Your task to perform on an android device: turn off smart reply in the gmail app Image 0: 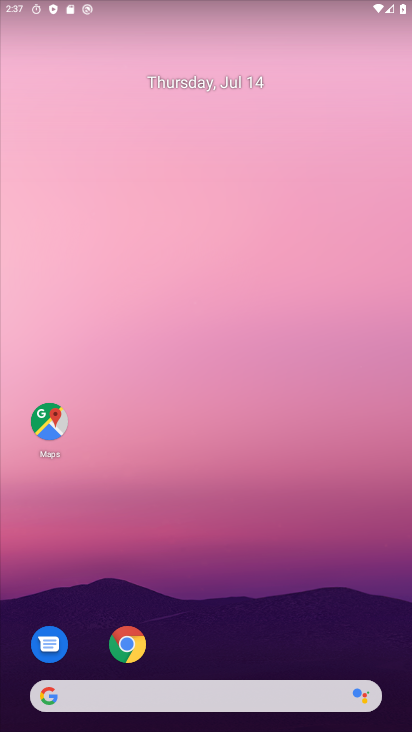
Step 0: drag from (55, 657) to (143, 136)
Your task to perform on an android device: turn off smart reply in the gmail app Image 1: 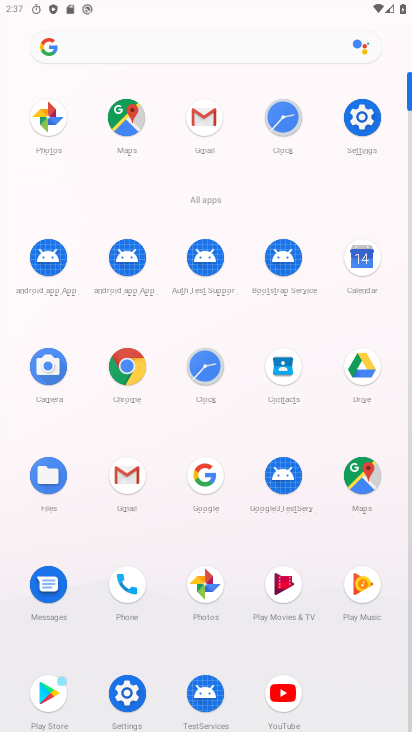
Step 1: click (133, 473)
Your task to perform on an android device: turn off smart reply in the gmail app Image 2: 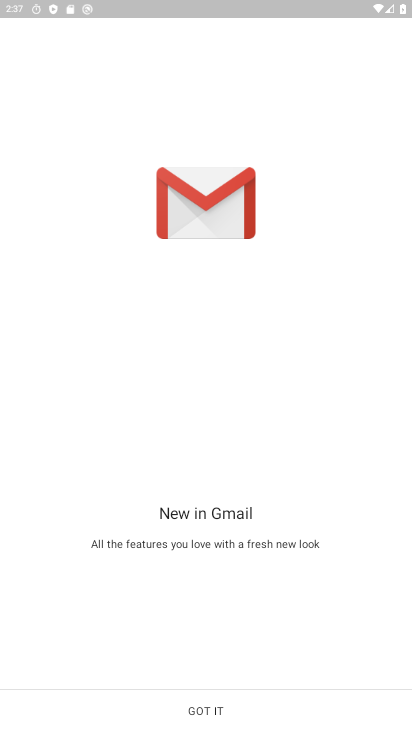
Step 2: click (194, 719)
Your task to perform on an android device: turn off smart reply in the gmail app Image 3: 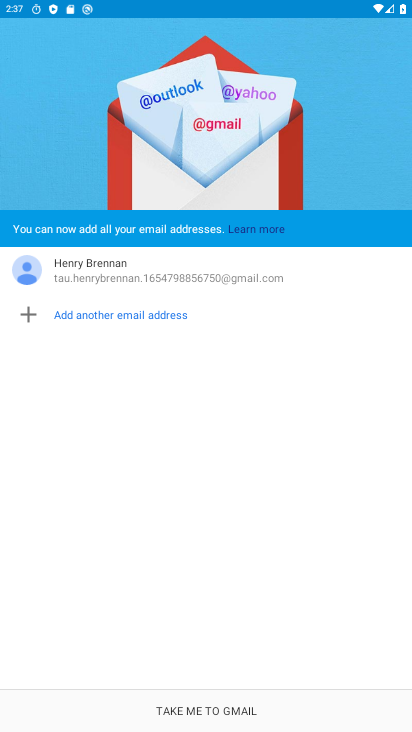
Step 3: click (194, 710)
Your task to perform on an android device: turn off smart reply in the gmail app Image 4: 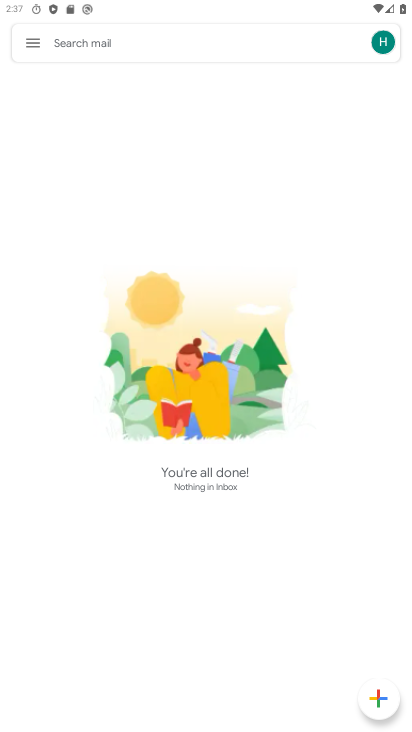
Step 4: click (29, 33)
Your task to perform on an android device: turn off smart reply in the gmail app Image 5: 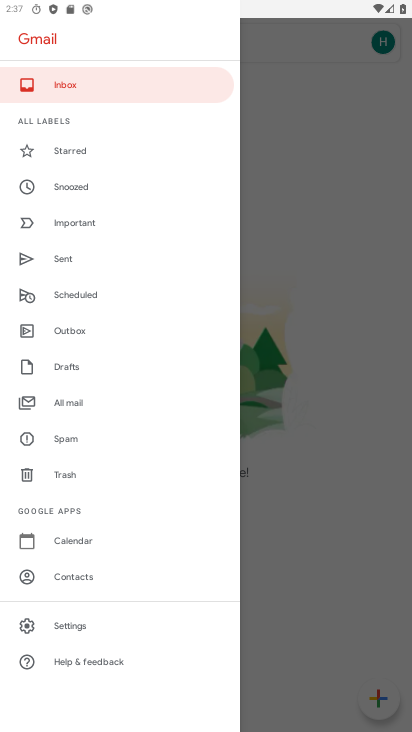
Step 5: click (57, 76)
Your task to perform on an android device: turn off smart reply in the gmail app Image 6: 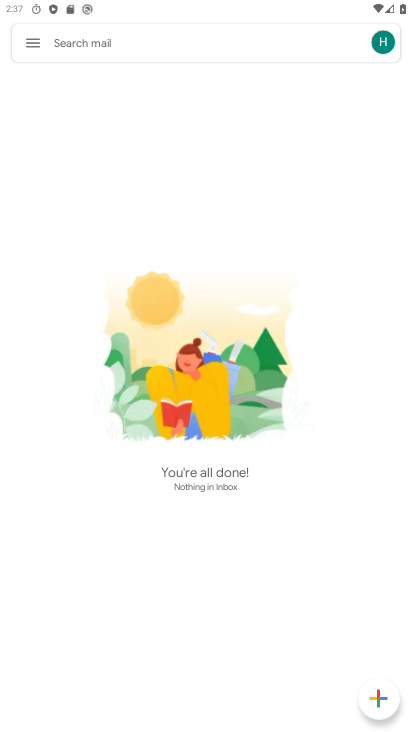
Step 6: task complete